Your task to perform on an android device: create a new album in the google photos Image 0: 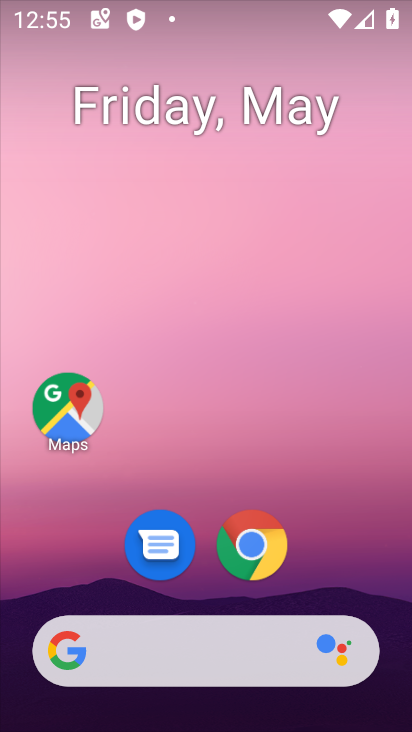
Step 0: drag from (325, 545) to (296, 81)
Your task to perform on an android device: create a new album in the google photos Image 1: 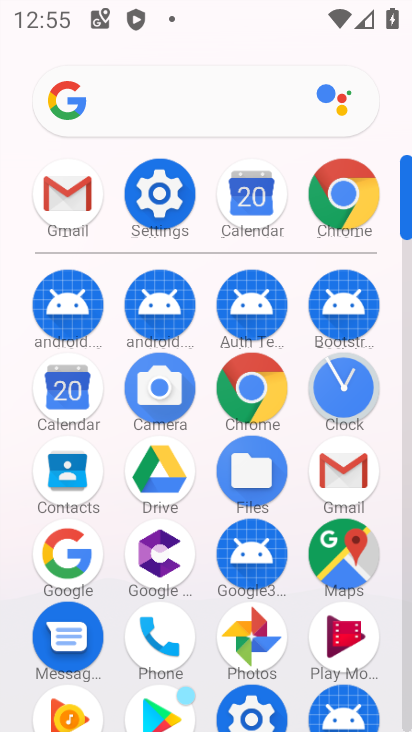
Step 1: click (246, 641)
Your task to perform on an android device: create a new album in the google photos Image 2: 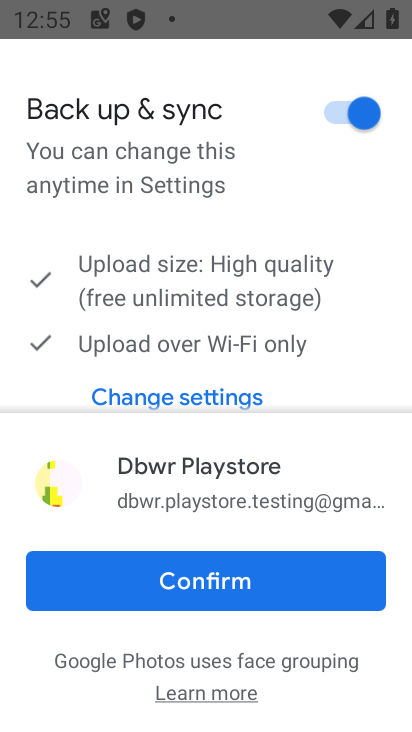
Step 2: click (257, 595)
Your task to perform on an android device: create a new album in the google photos Image 3: 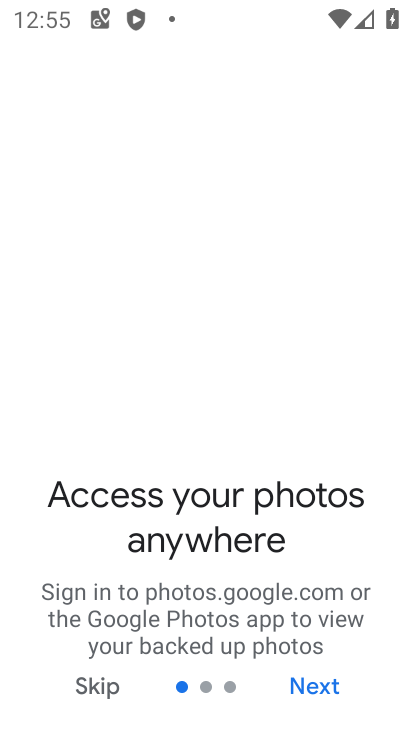
Step 3: click (325, 686)
Your task to perform on an android device: create a new album in the google photos Image 4: 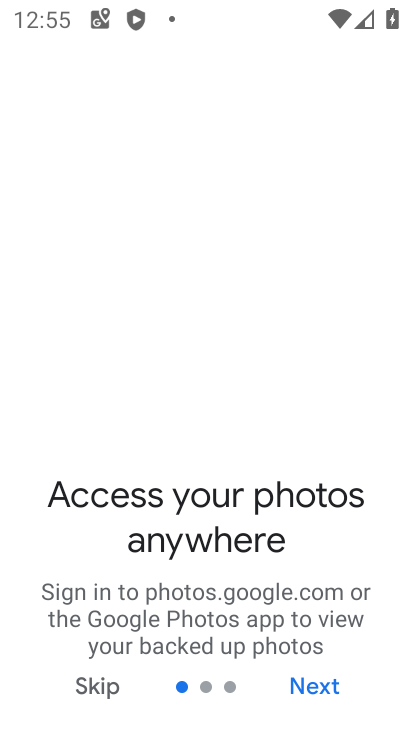
Step 4: click (325, 686)
Your task to perform on an android device: create a new album in the google photos Image 5: 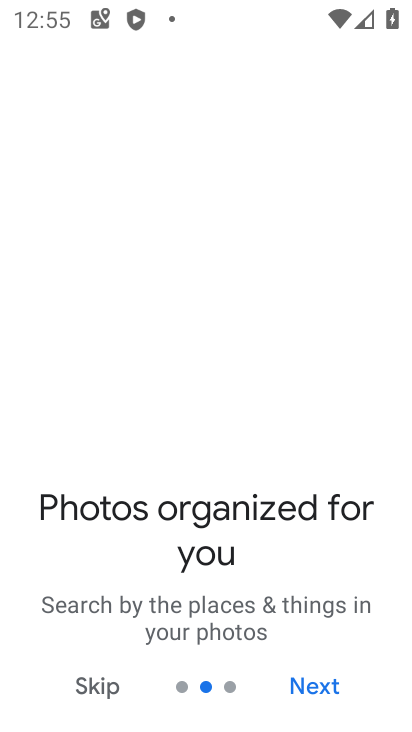
Step 5: click (325, 686)
Your task to perform on an android device: create a new album in the google photos Image 6: 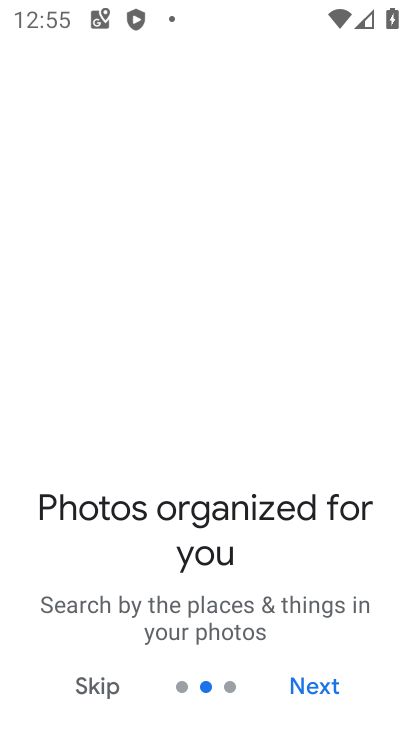
Step 6: click (325, 686)
Your task to perform on an android device: create a new album in the google photos Image 7: 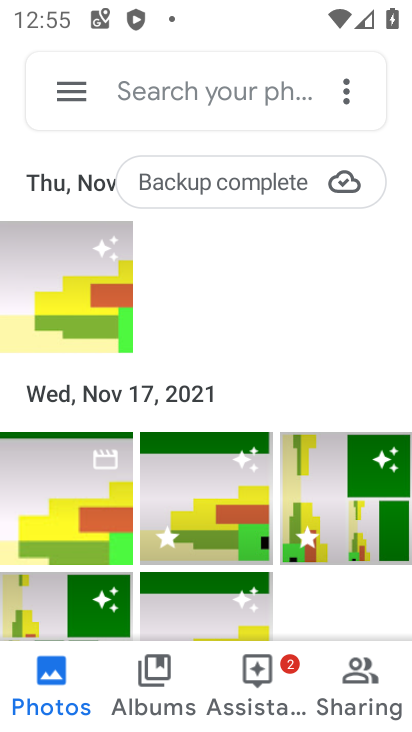
Step 7: click (349, 85)
Your task to perform on an android device: create a new album in the google photos Image 8: 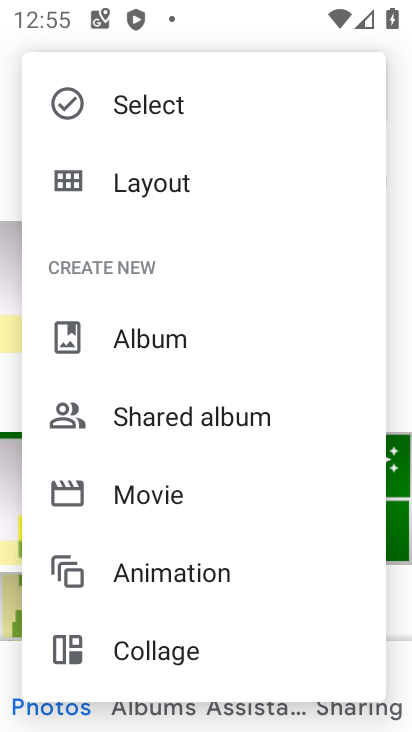
Step 8: click (103, 344)
Your task to perform on an android device: create a new album in the google photos Image 9: 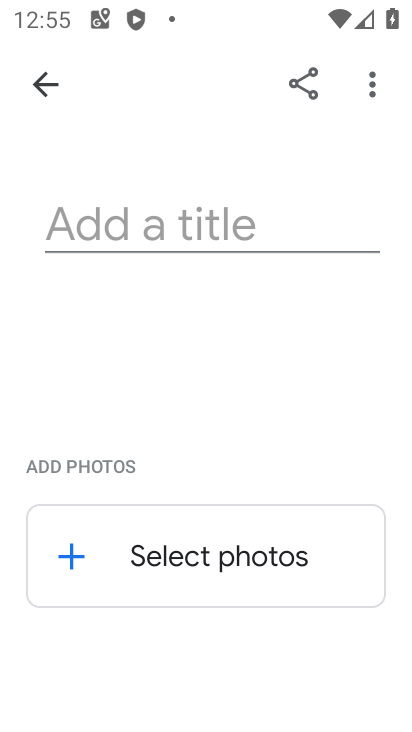
Step 9: click (226, 218)
Your task to perform on an android device: create a new album in the google photos Image 10: 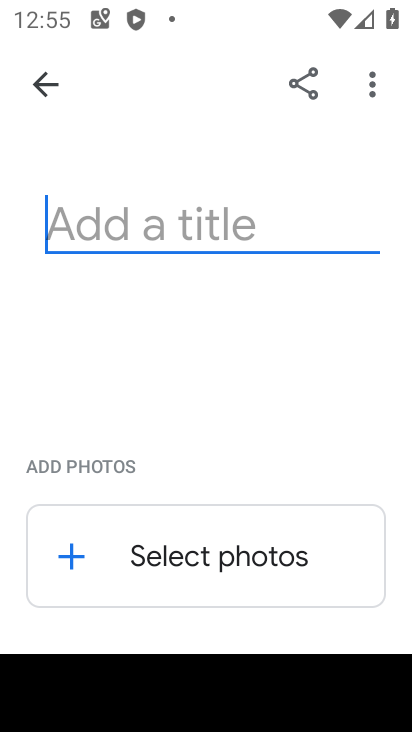
Step 10: type "sdgdfg"
Your task to perform on an android device: create a new album in the google photos Image 11: 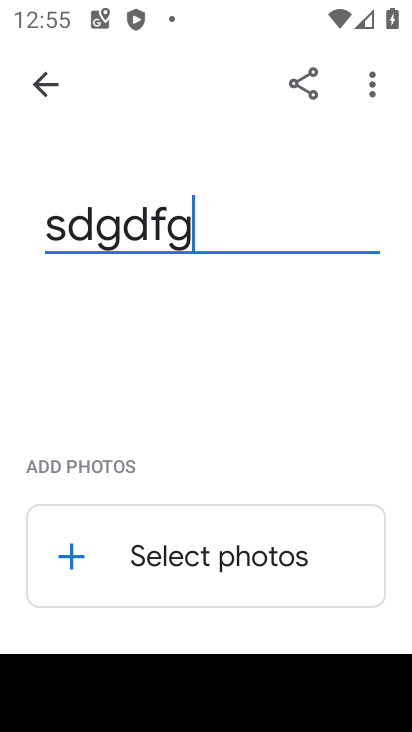
Step 11: click (69, 555)
Your task to perform on an android device: create a new album in the google photos Image 12: 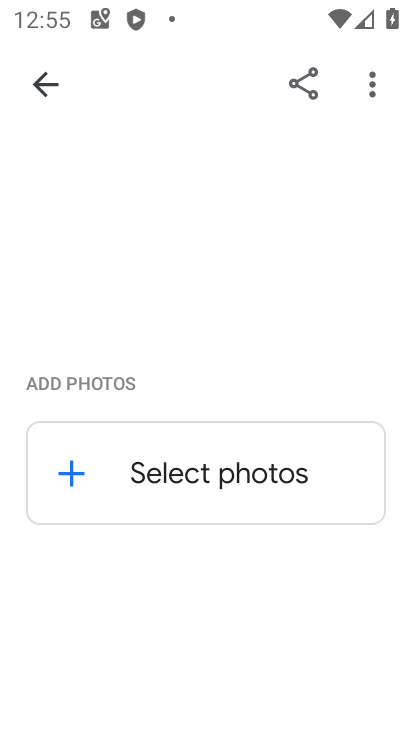
Step 12: click (77, 467)
Your task to perform on an android device: create a new album in the google photos Image 13: 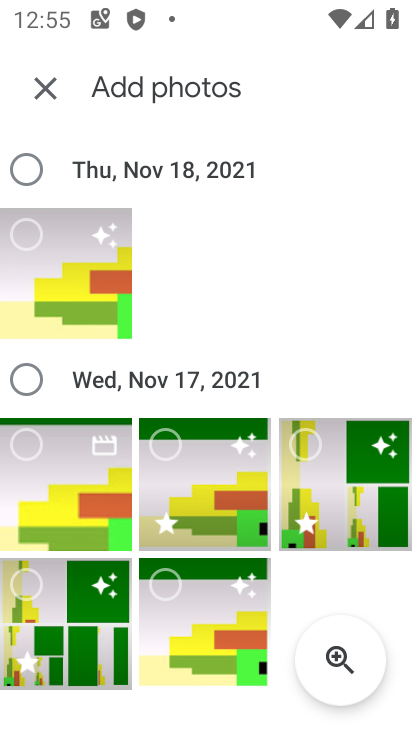
Step 13: click (25, 434)
Your task to perform on an android device: create a new album in the google photos Image 14: 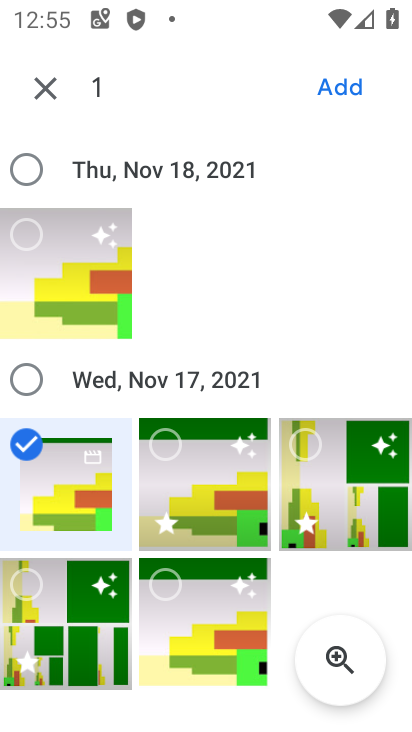
Step 14: click (156, 440)
Your task to perform on an android device: create a new album in the google photos Image 15: 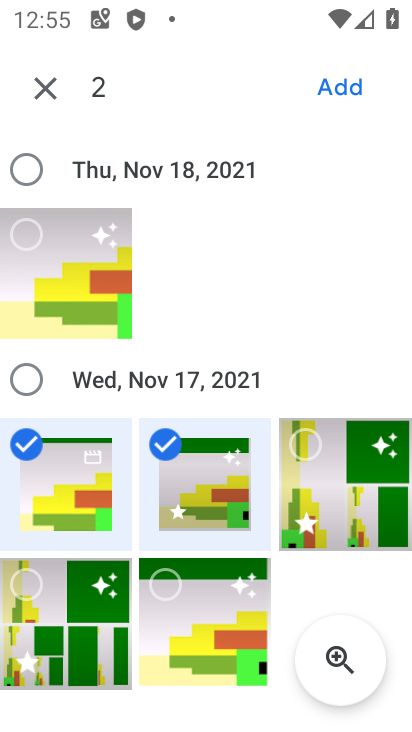
Step 15: click (312, 448)
Your task to perform on an android device: create a new album in the google photos Image 16: 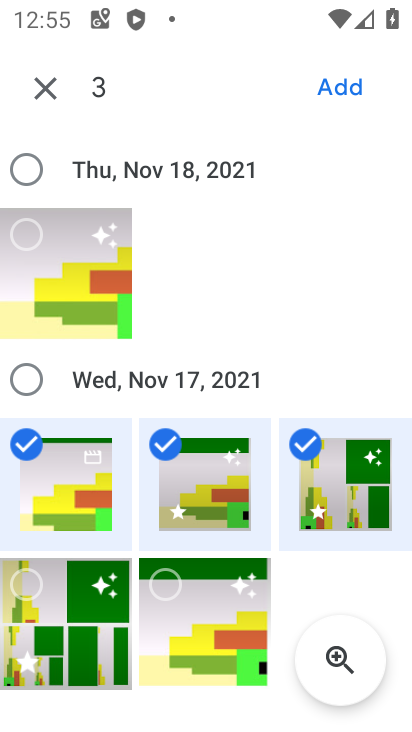
Step 16: click (341, 84)
Your task to perform on an android device: create a new album in the google photos Image 17: 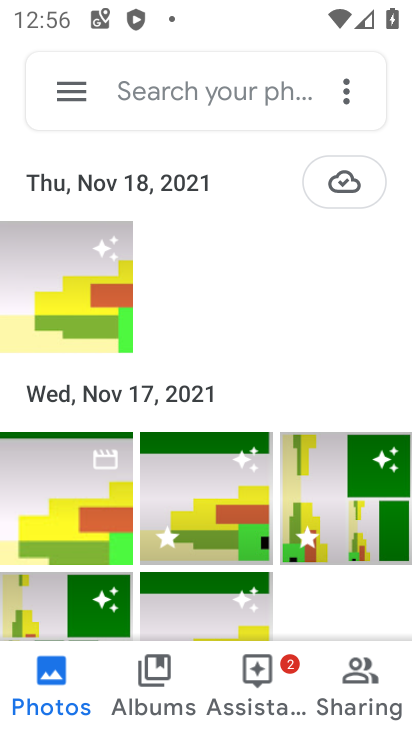
Step 17: task complete